Your task to perform on an android device: Check the weather Image 0: 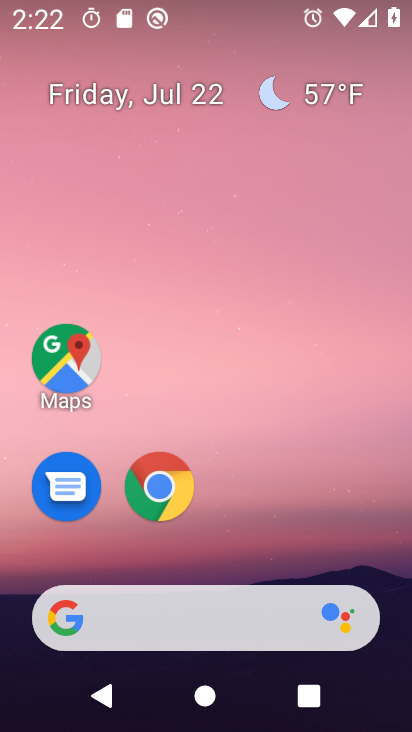
Step 0: press home button
Your task to perform on an android device: Check the weather Image 1: 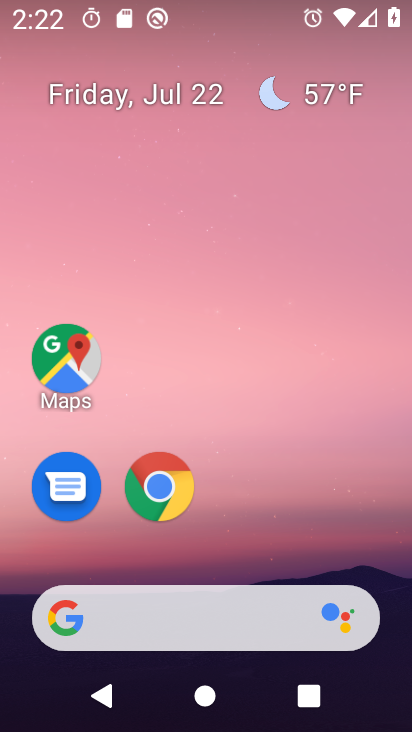
Step 1: click (224, 630)
Your task to perform on an android device: Check the weather Image 2: 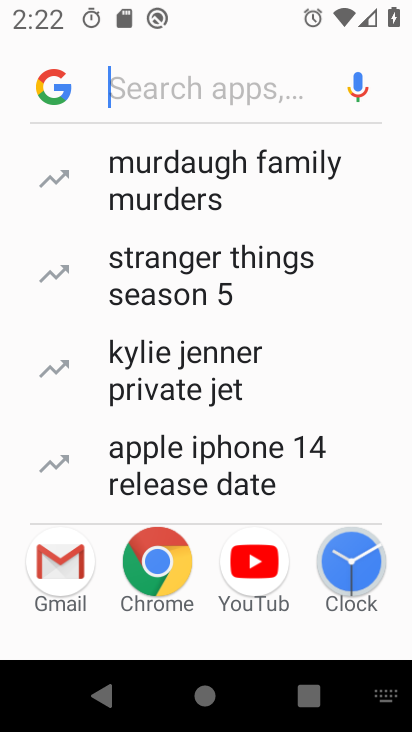
Step 2: type "weather"
Your task to perform on an android device: Check the weather Image 3: 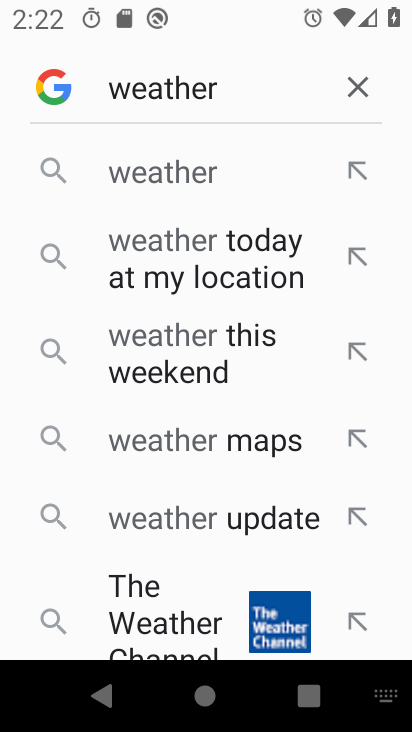
Step 3: click (257, 187)
Your task to perform on an android device: Check the weather Image 4: 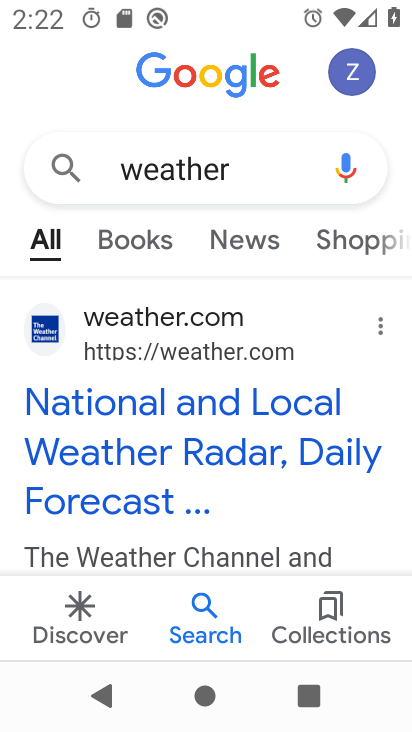
Step 4: task complete